Your task to perform on an android device: open chrome privacy settings Image 0: 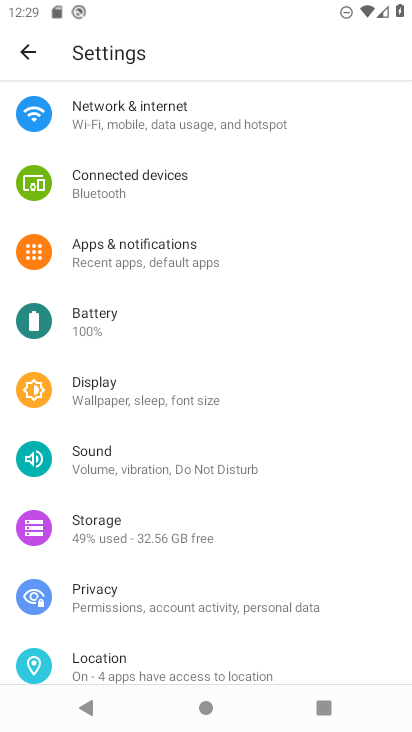
Step 0: press home button
Your task to perform on an android device: open chrome privacy settings Image 1: 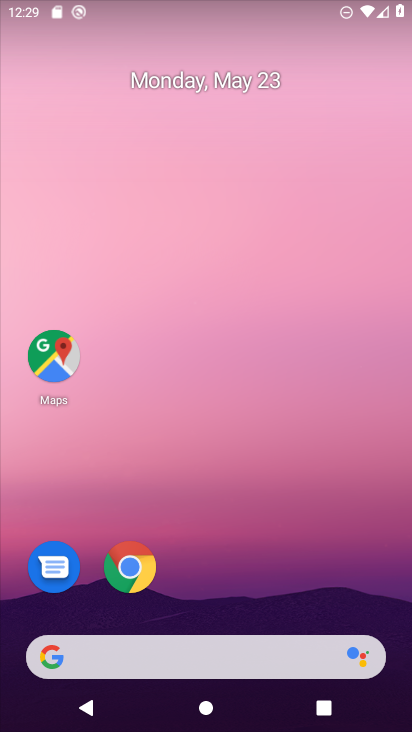
Step 1: click (146, 551)
Your task to perform on an android device: open chrome privacy settings Image 2: 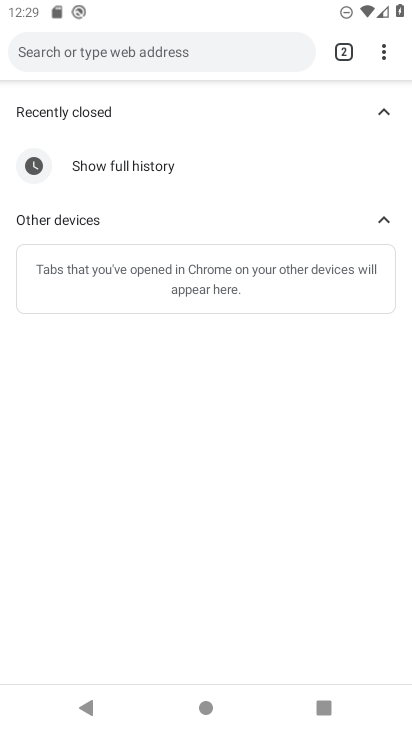
Step 2: click (393, 49)
Your task to perform on an android device: open chrome privacy settings Image 3: 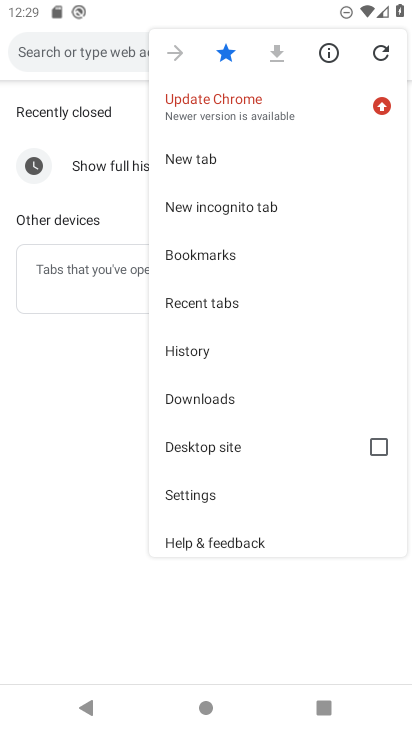
Step 3: click (175, 490)
Your task to perform on an android device: open chrome privacy settings Image 4: 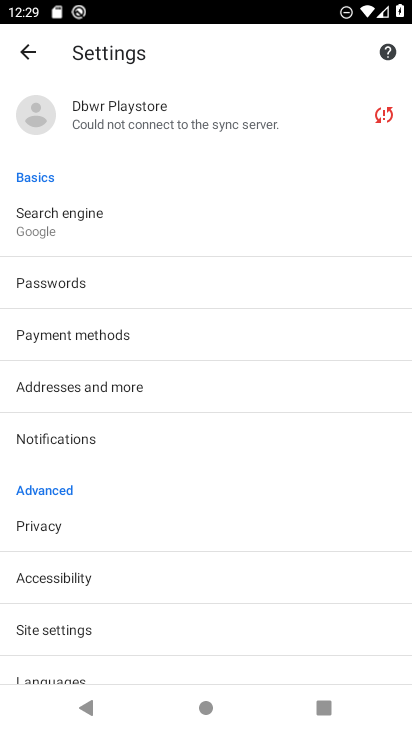
Step 4: click (63, 529)
Your task to perform on an android device: open chrome privacy settings Image 5: 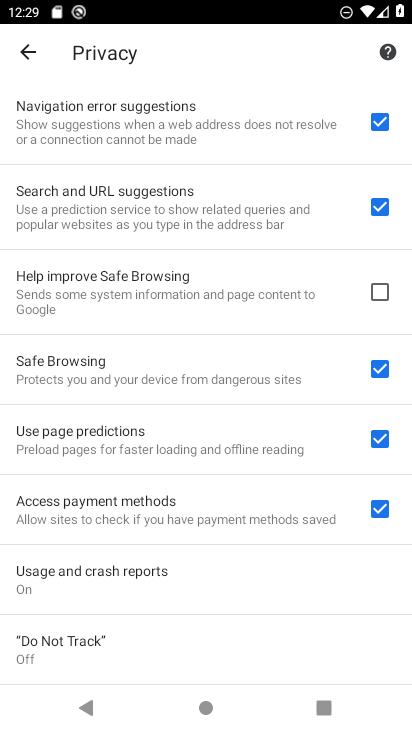
Step 5: task complete